Your task to perform on an android device: stop showing notifications on the lock screen Image 0: 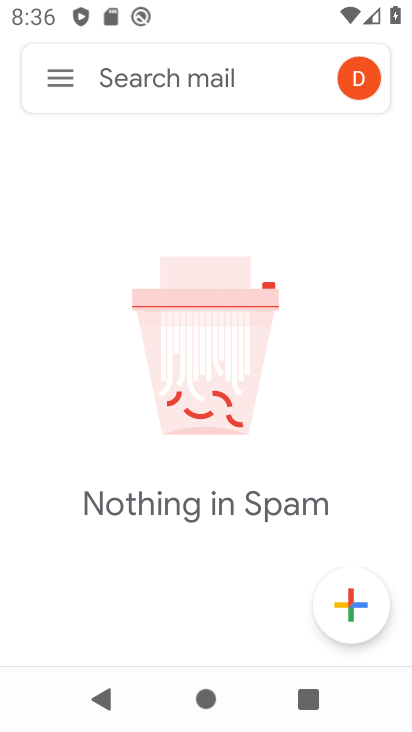
Step 0: press home button
Your task to perform on an android device: stop showing notifications on the lock screen Image 1: 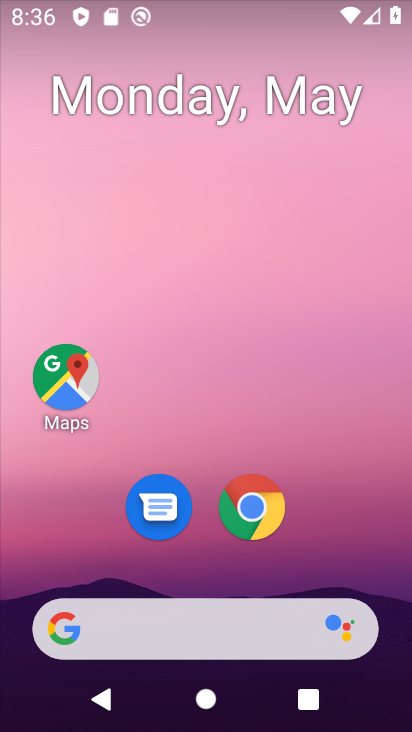
Step 1: drag from (222, 516) to (235, 0)
Your task to perform on an android device: stop showing notifications on the lock screen Image 2: 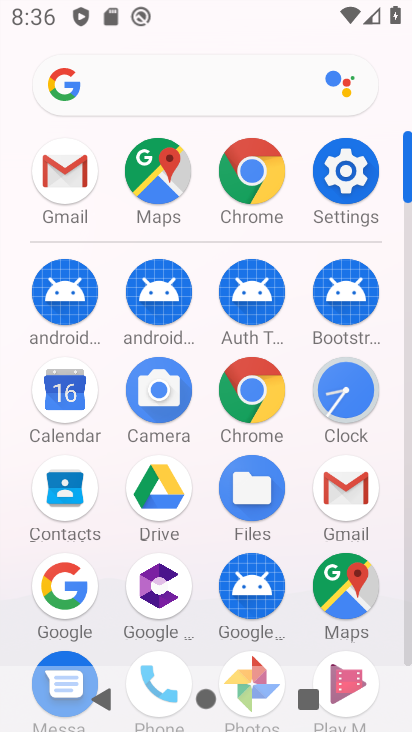
Step 2: click (333, 189)
Your task to perform on an android device: stop showing notifications on the lock screen Image 3: 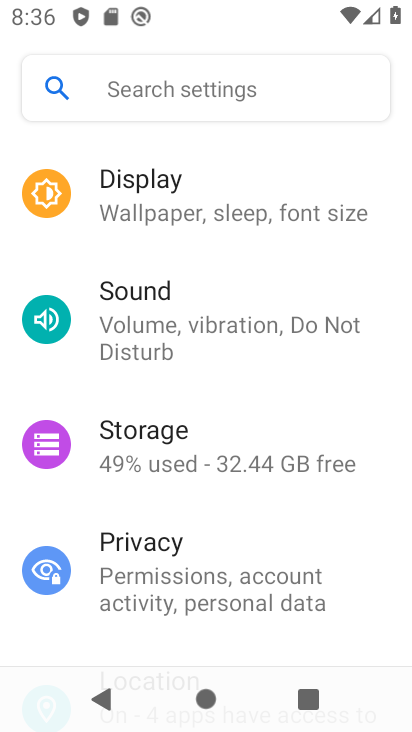
Step 3: drag from (213, 246) to (217, 563)
Your task to perform on an android device: stop showing notifications on the lock screen Image 4: 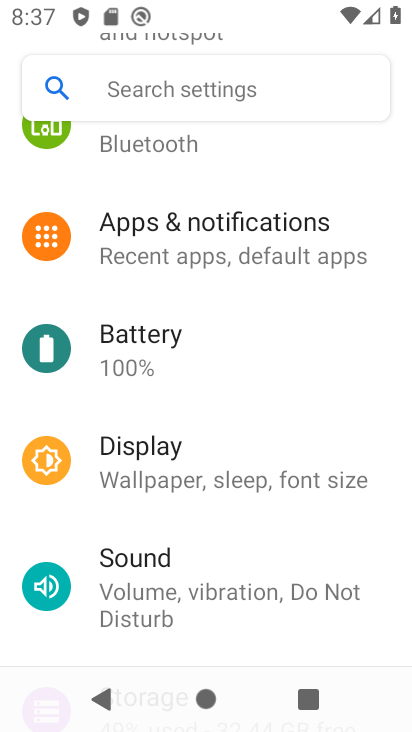
Step 4: click (241, 245)
Your task to perform on an android device: stop showing notifications on the lock screen Image 5: 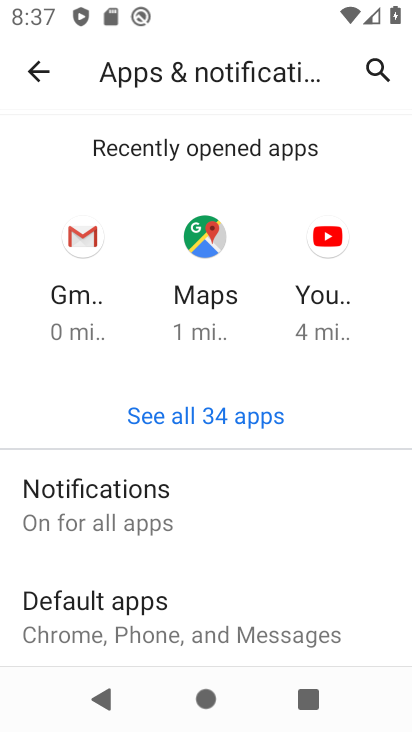
Step 5: drag from (142, 521) to (194, 237)
Your task to perform on an android device: stop showing notifications on the lock screen Image 6: 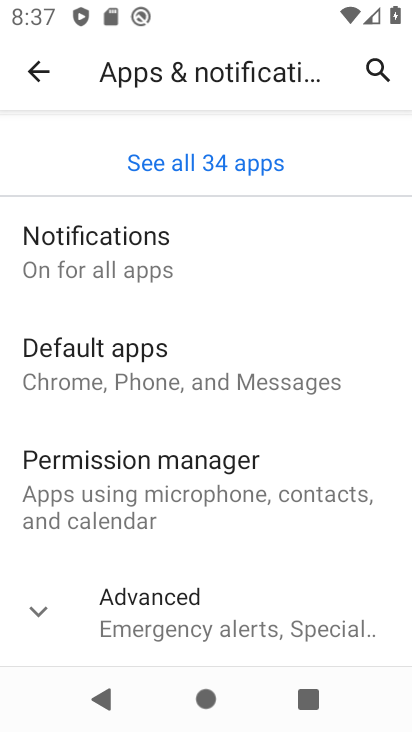
Step 6: click (113, 275)
Your task to perform on an android device: stop showing notifications on the lock screen Image 7: 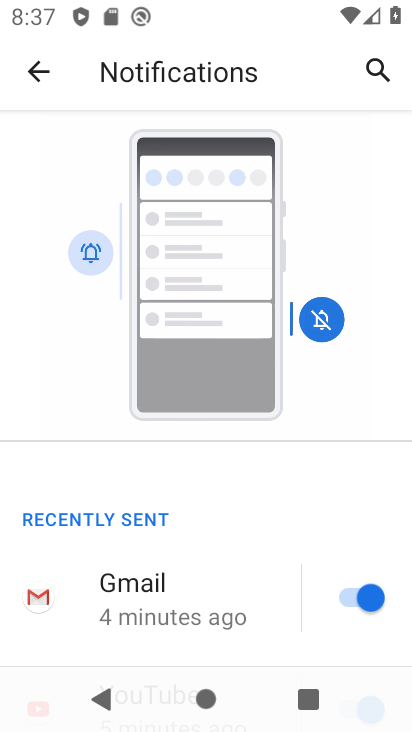
Step 7: drag from (192, 608) to (246, 313)
Your task to perform on an android device: stop showing notifications on the lock screen Image 8: 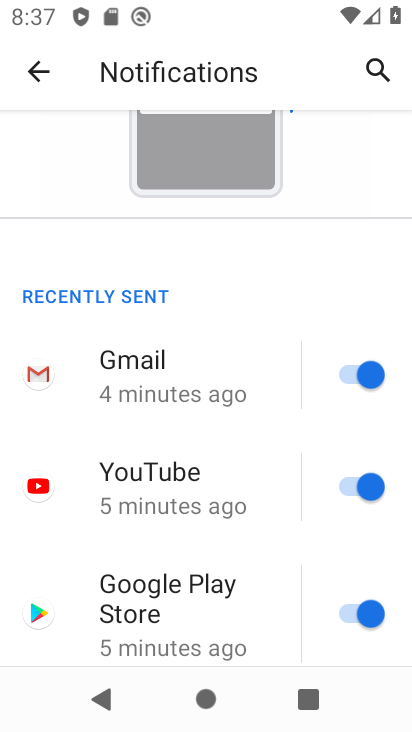
Step 8: drag from (236, 570) to (342, 179)
Your task to perform on an android device: stop showing notifications on the lock screen Image 9: 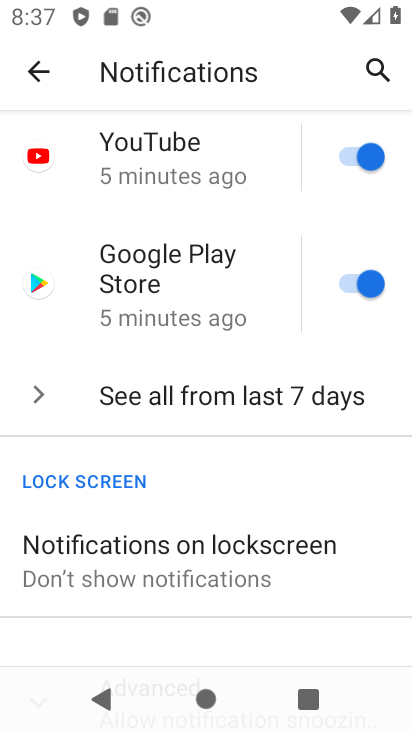
Step 9: drag from (261, 545) to (311, 147)
Your task to perform on an android device: stop showing notifications on the lock screen Image 10: 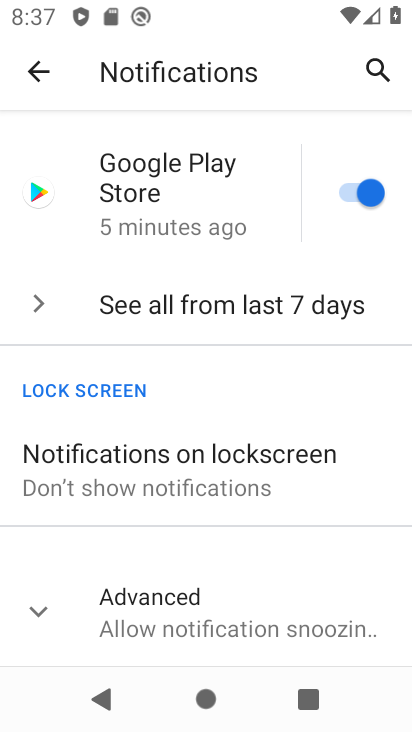
Step 10: click (213, 494)
Your task to perform on an android device: stop showing notifications on the lock screen Image 11: 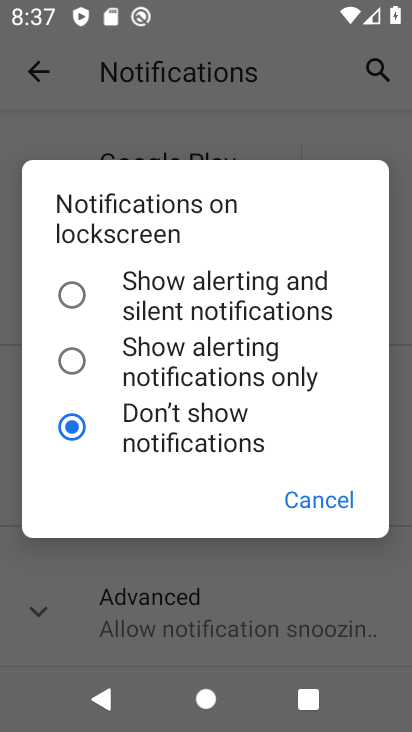
Step 11: task complete